Your task to perform on an android device: open device folders in google photos Image 0: 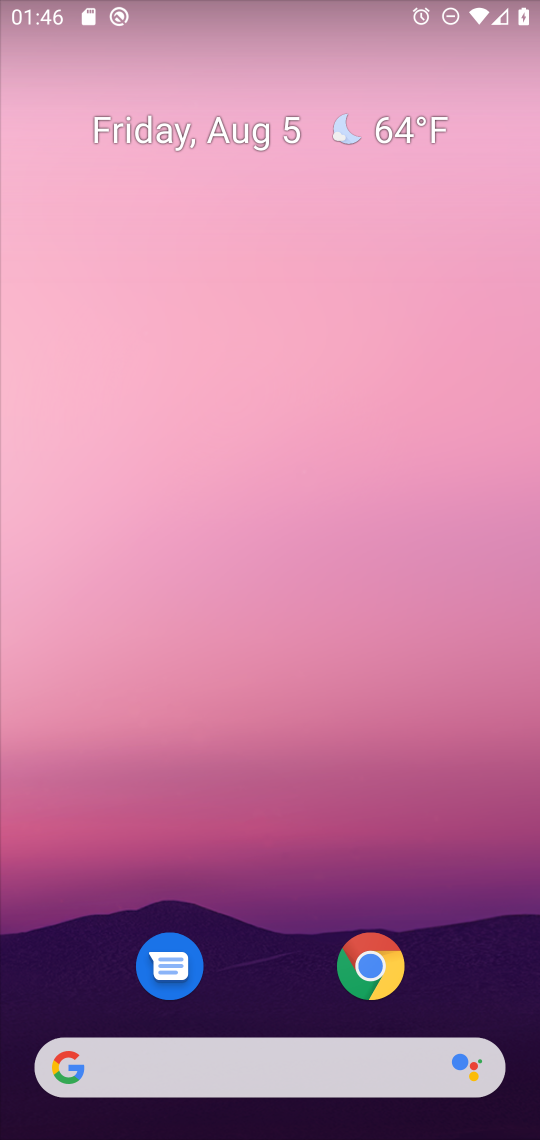
Step 0: click (300, 906)
Your task to perform on an android device: open device folders in google photos Image 1: 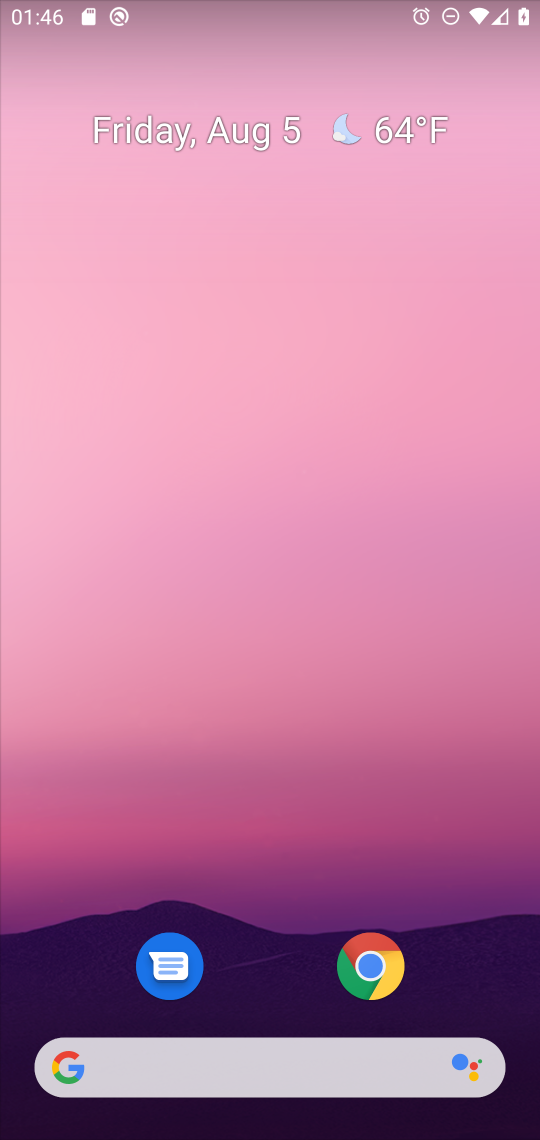
Step 1: drag from (279, 906) to (376, 46)
Your task to perform on an android device: open device folders in google photos Image 2: 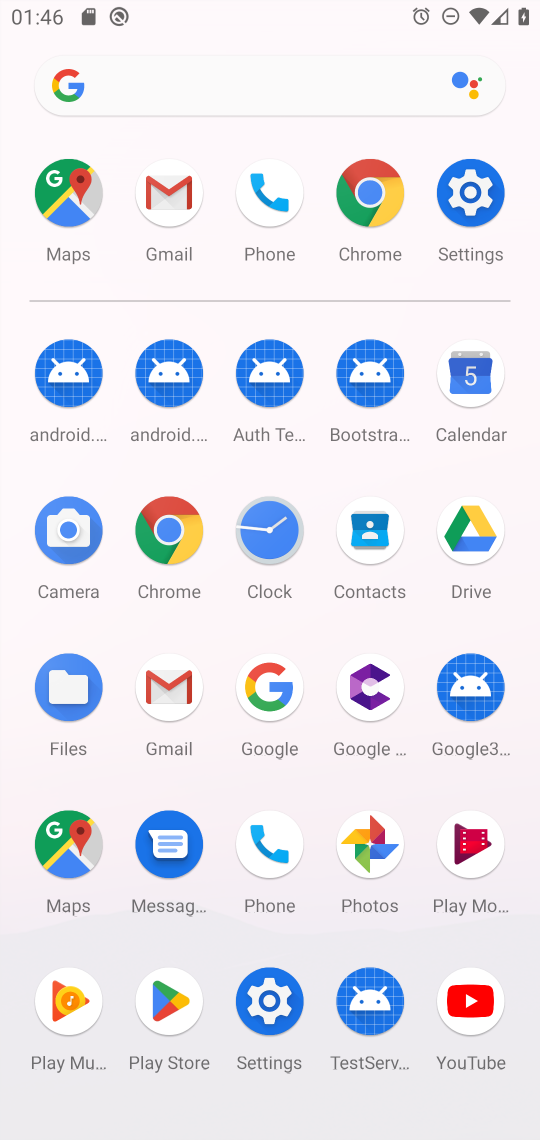
Step 2: click (376, 830)
Your task to perform on an android device: open device folders in google photos Image 3: 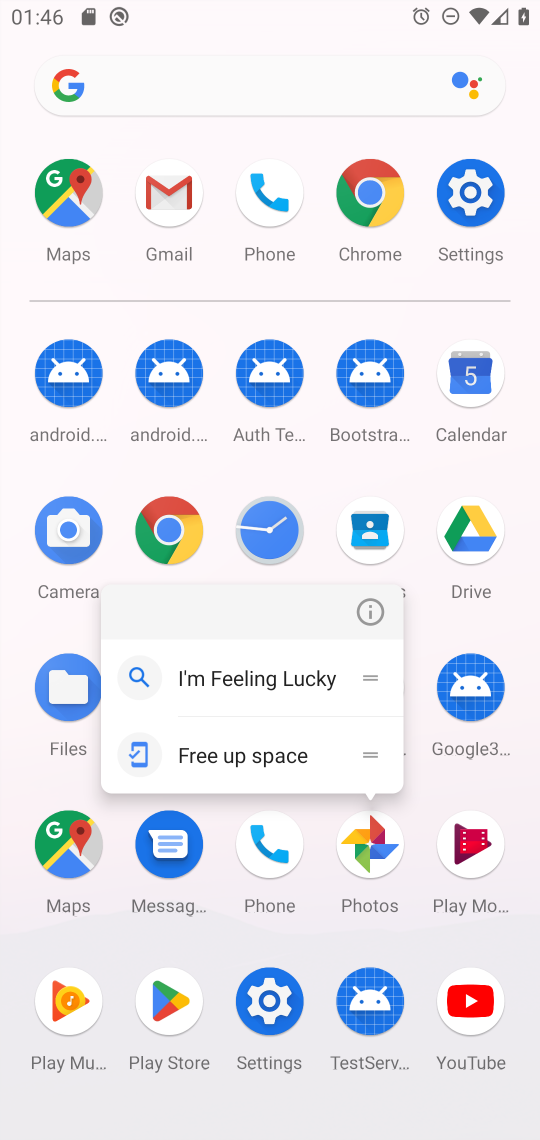
Step 3: click (376, 830)
Your task to perform on an android device: open device folders in google photos Image 4: 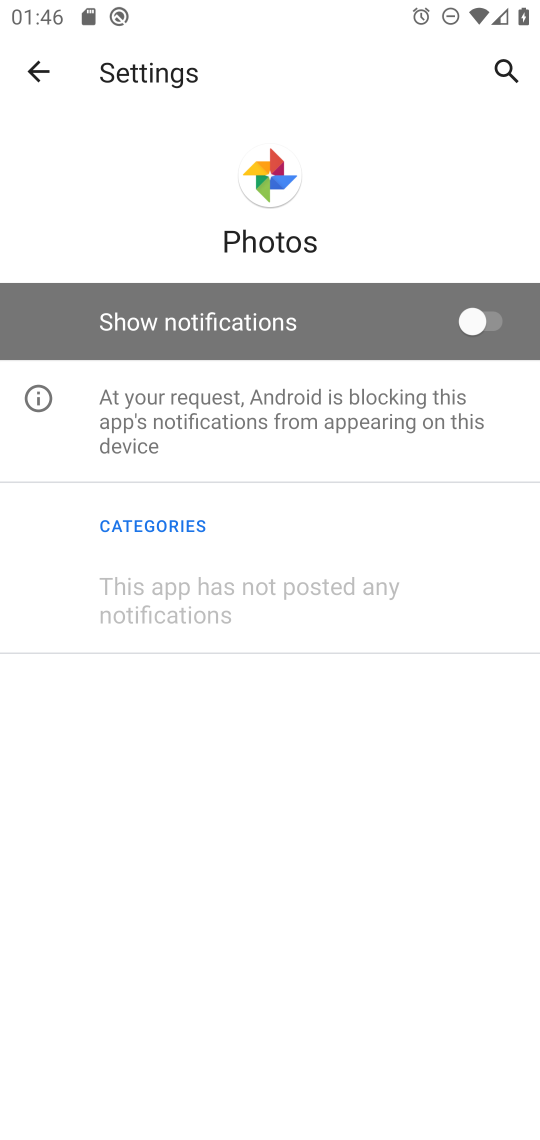
Step 4: click (40, 63)
Your task to perform on an android device: open device folders in google photos Image 5: 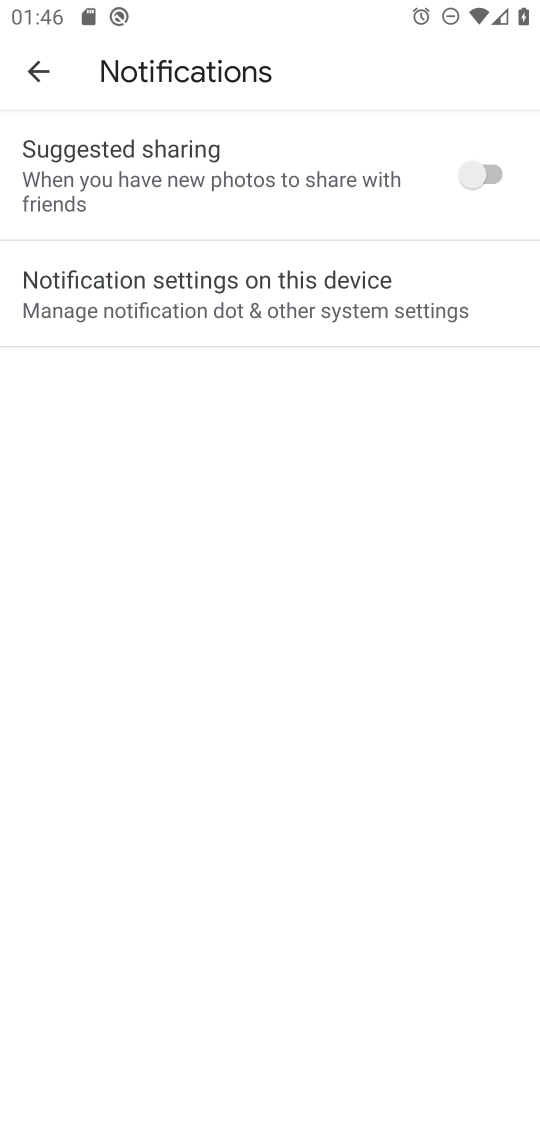
Step 5: click (40, 63)
Your task to perform on an android device: open device folders in google photos Image 6: 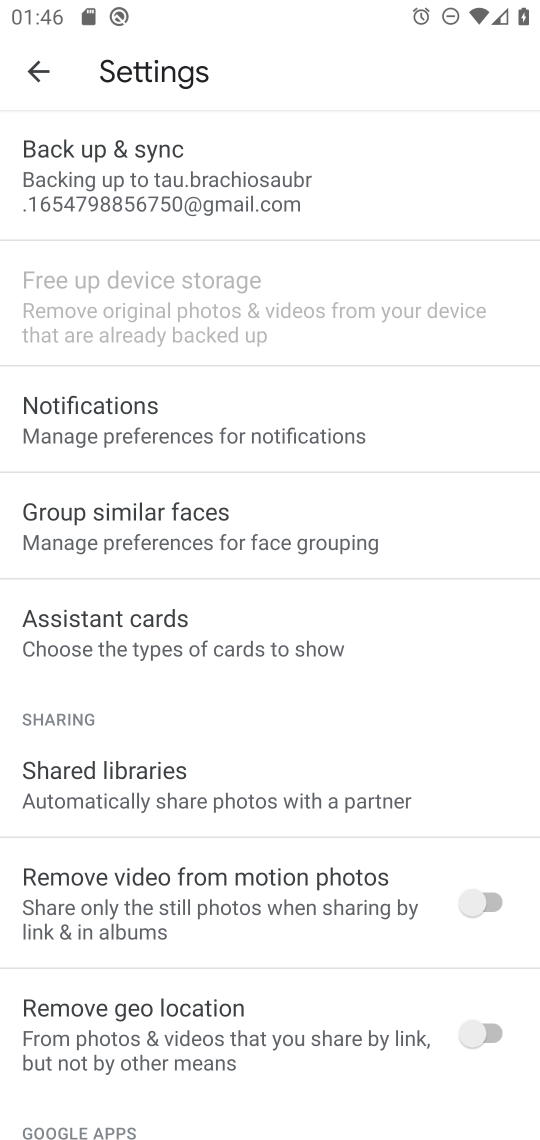
Step 6: click (40, 63)
Your task to perform on an android device: open device folders in google photos Image 7: 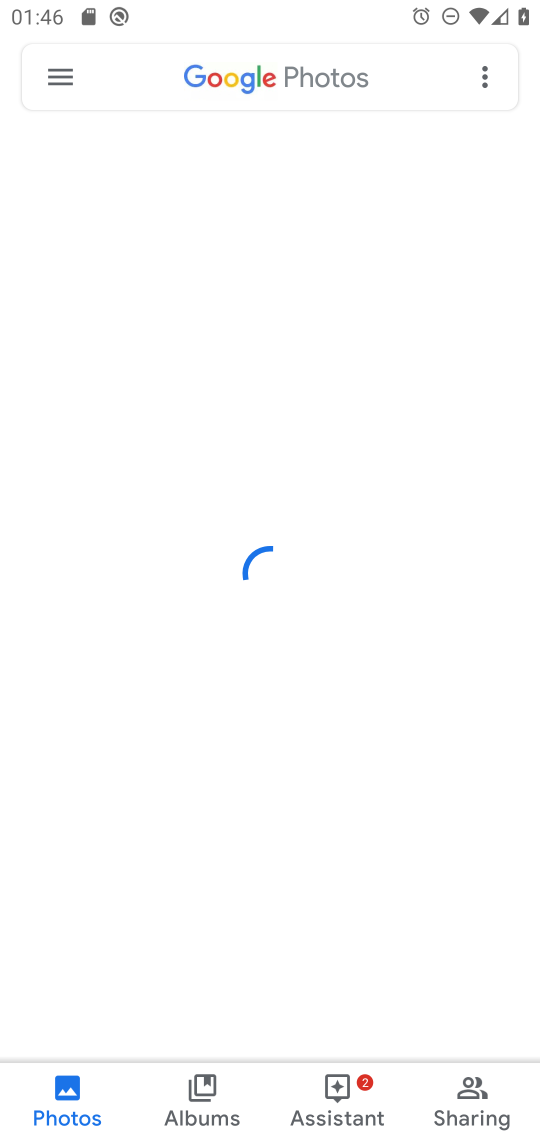
Step 7: click (40, 63)
Your task to perform on an android device: open device folders in google photos Image 8: 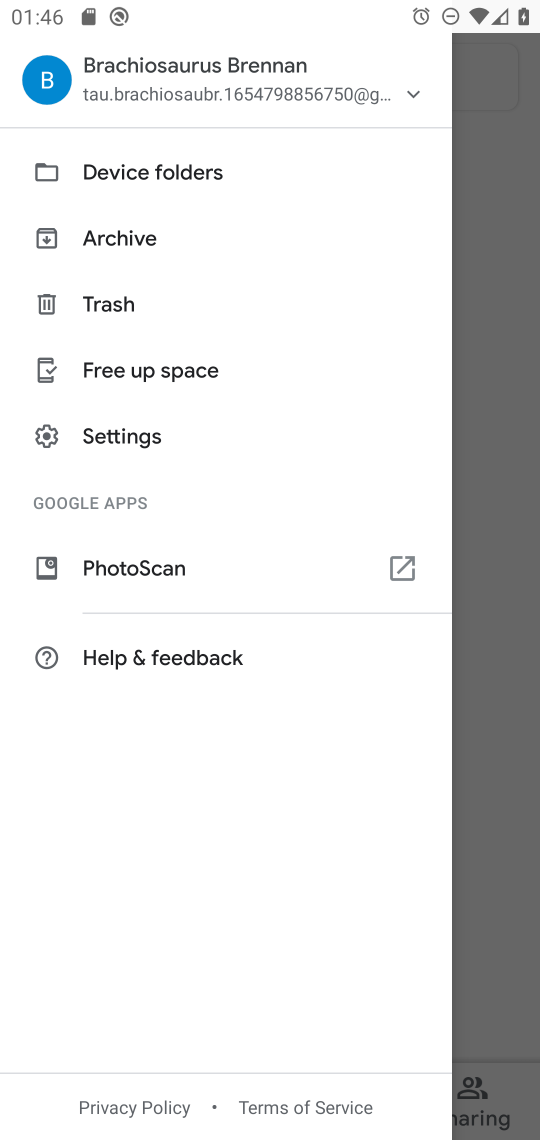
Step 8: click (130, 160)
Your task to perform on an android device: open device folders in google photos Image 9: 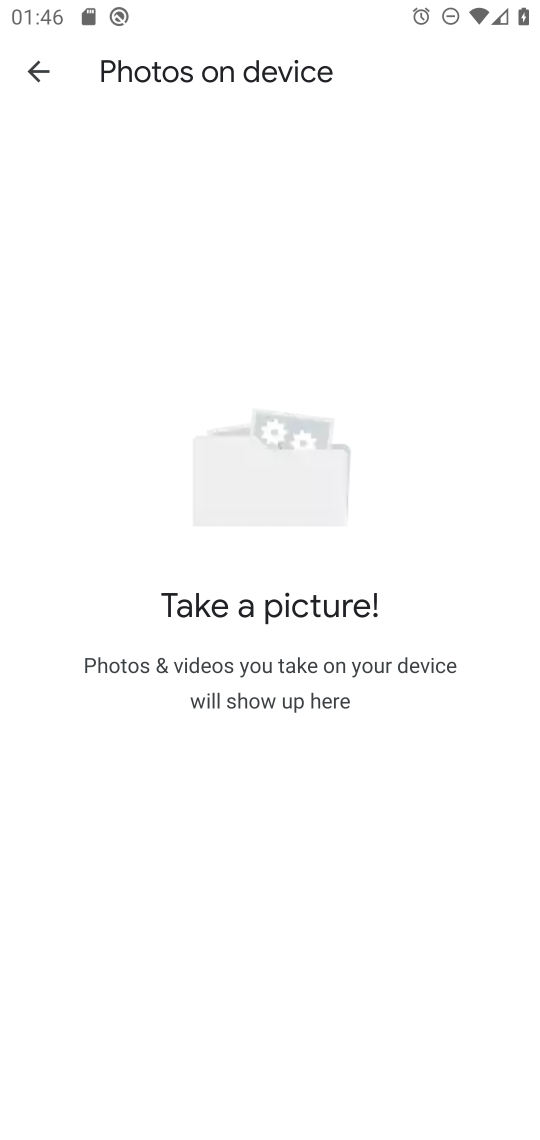
Step 9: task complete